Your task to perform on an android device: What's the weather going to be tomorrow? Image 0: 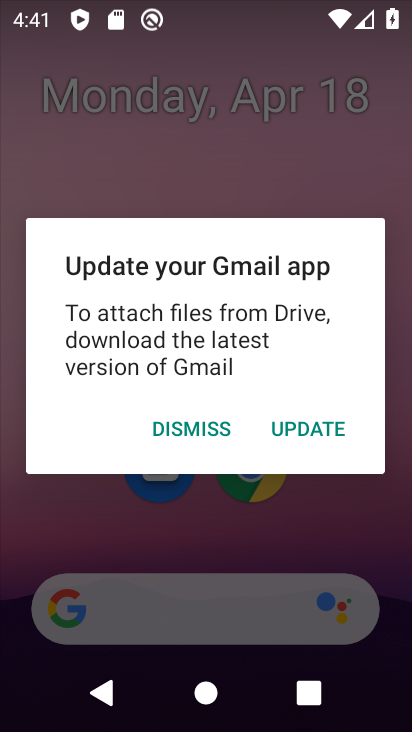
Step 0: press home button
Your task to perform on an android device: What's the weather going to be tomorrow? Image 1: 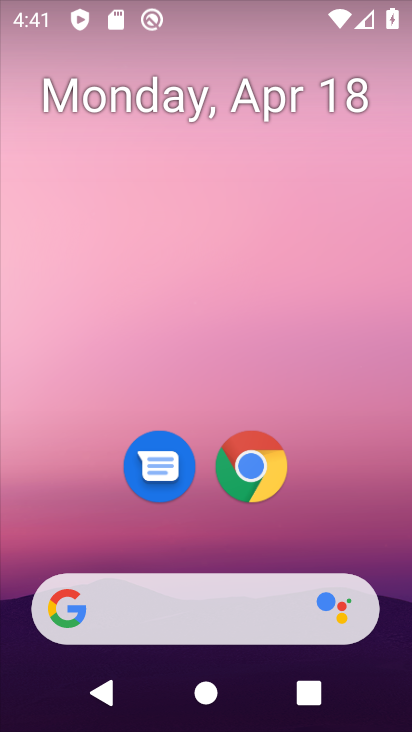
Step 1: drag from (323, 506) to (278, 40)
Your task to perform on an android device: What's the weather going to be tomorrow? Image 2: 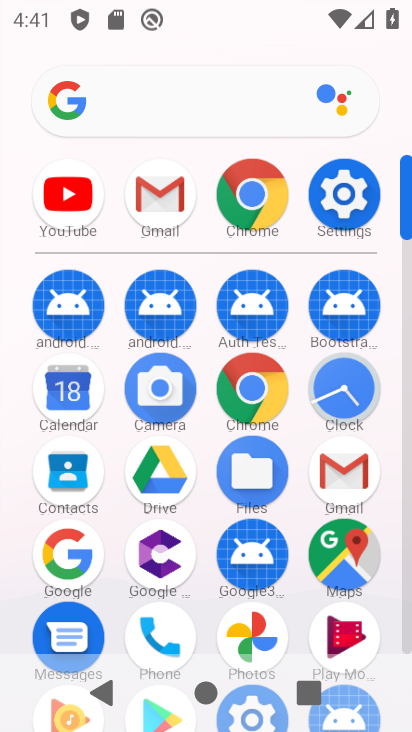
Step 2: click (172, 109)
Your task to perform on an android device: What's the weather going to be tomorrow? Image 3: 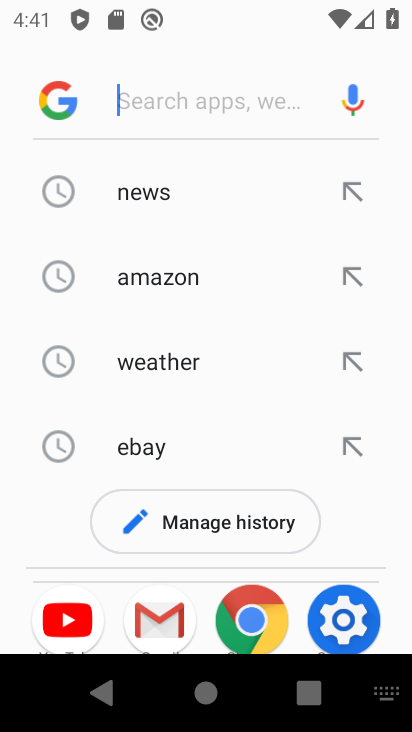
Step 3: click (171, 351)
Your task to perform on an android device: What's the weather going to be tomorrow? Image 4: 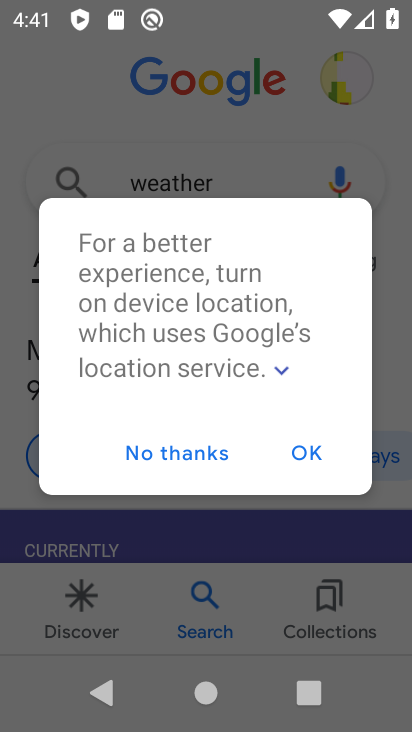
Step 4: click (312, 446)
Your task to perform on an android device: What's the weather going to be tomorrow? Image 5: 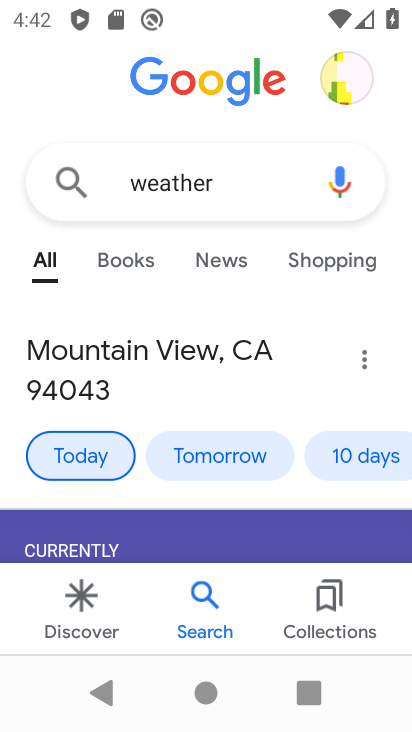
Step 5: task complete